Your task to perform on an android device: Open accessibility settings Image 0: 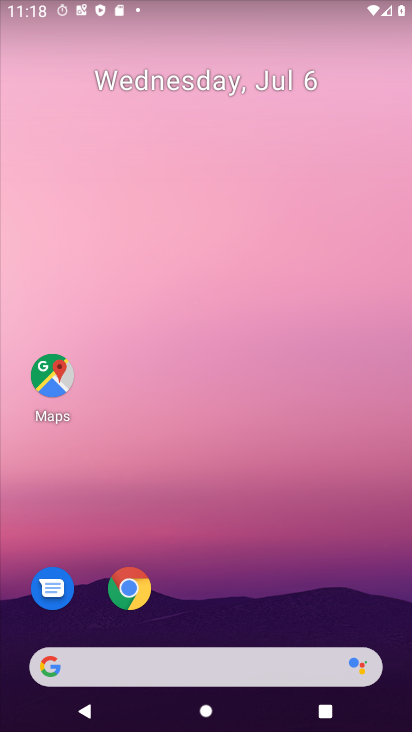
Step 0: drag from (232, 713) to (214, 170)
Your task to perform on an android device: Open accessibility settings Image 1: 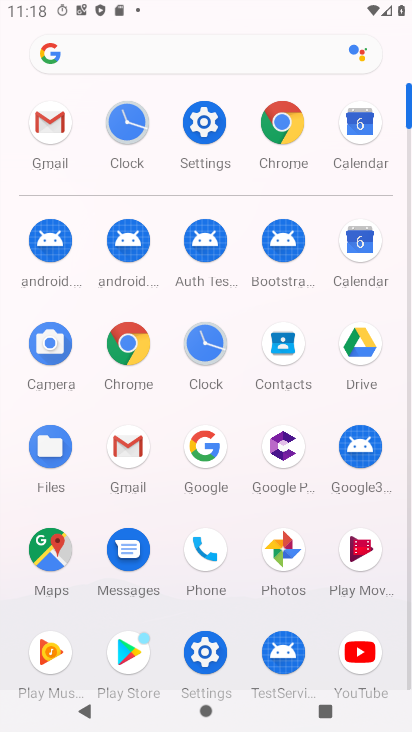
Step 1: click (204, 120)
Your task to perform on an android device: Open accessibility settings Image 2: 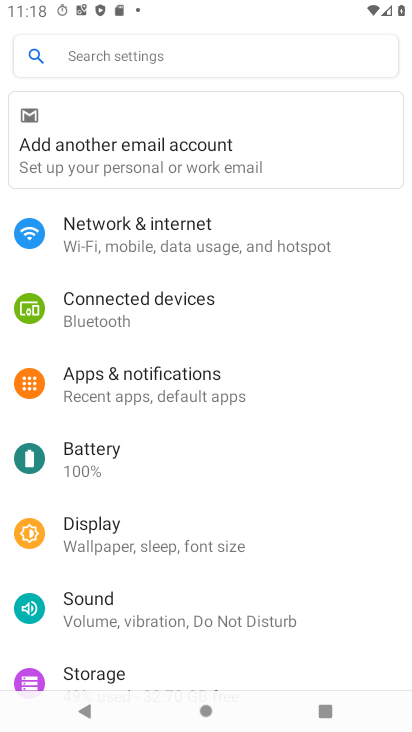
Step 2: drag from (174, 652) to (175, 216)
Your task to perform on an android device: Open accessibility settings Image 3: 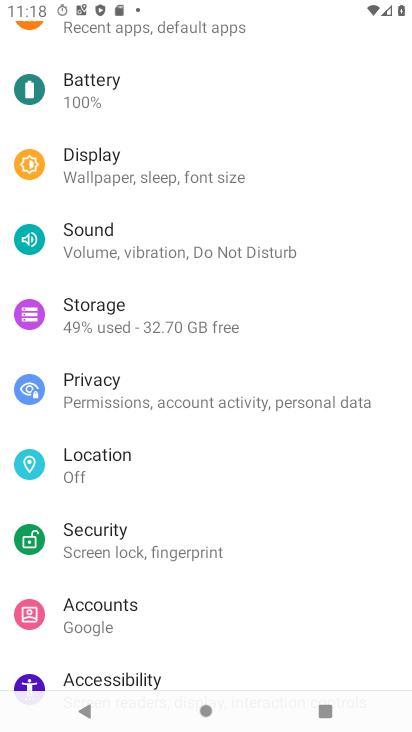
Step 3: click (111, 673)
Your task to perform on an android device: Open accessibility settings Image 4: 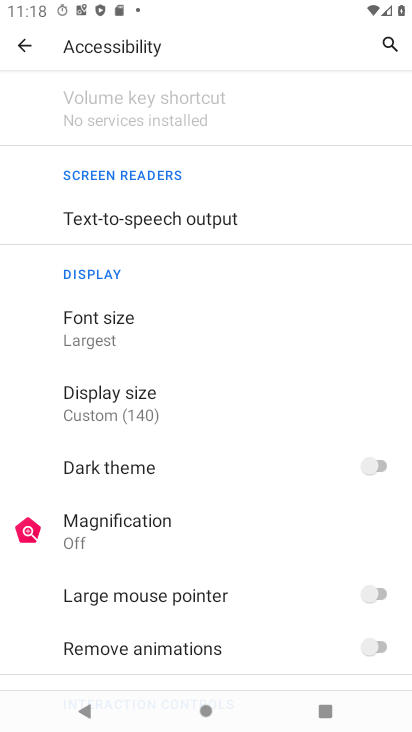
Step 4: task complete